Your task to perform on an android device: turn on notifications settings in the gmail app Image 0: 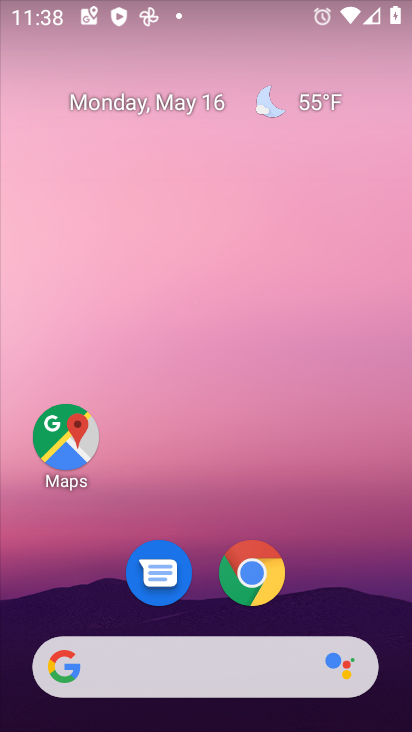
Step 0: drag from (376, 579) to (343, 209)
Your task to perform on an android device: turn on notifications settings in the gmail app Image 1: 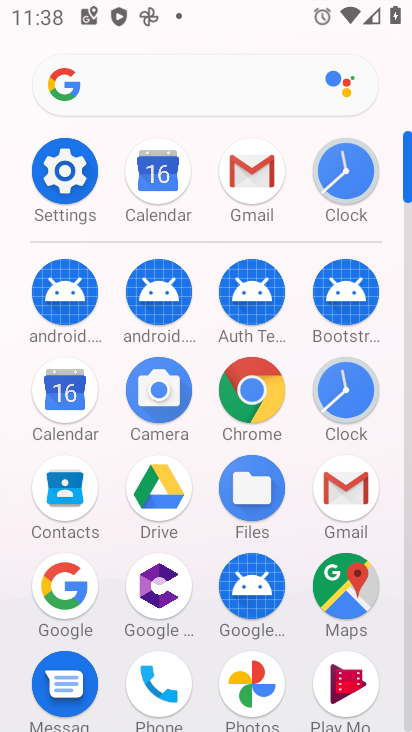
Step 1: click (334, 493)
Your task to perform on an android device: turn on notifications settings in the gmail app Image 2: 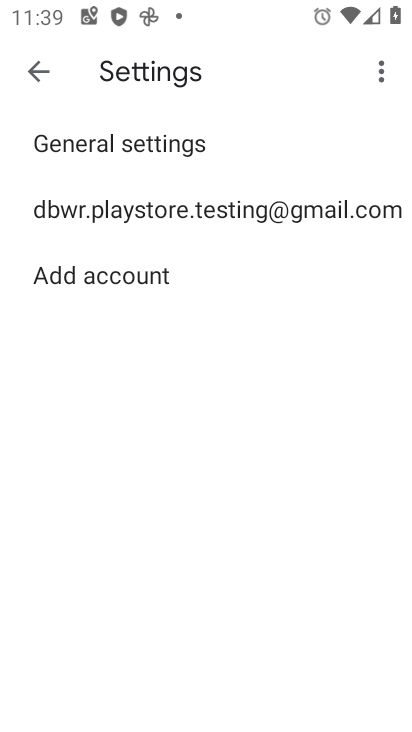
Step 2: click (127, 220)
Your task to perform on an android device: turn on notifications settings in the gmail app Image 3: 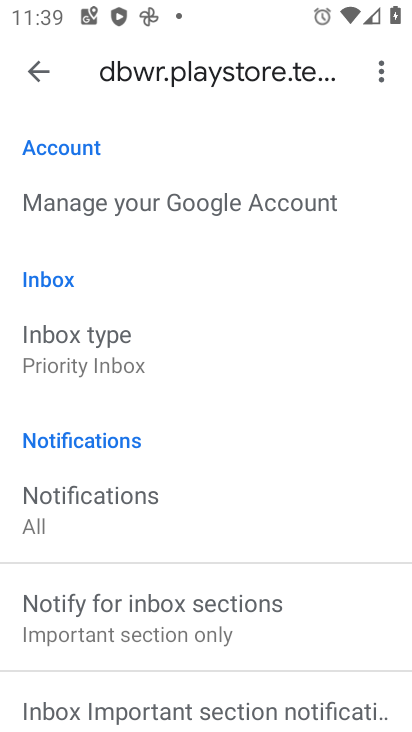
Step 3: drag from (206, 622) to (217, 297)
Your task to perform on an android device: turn on notifications settings in the gmail app Image 4: 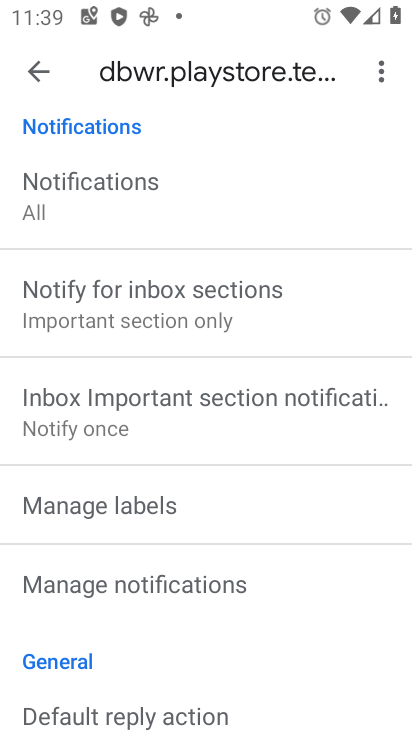
Step 4: click (145, 580)
Your task to perform on an android device: turn on notifications settings in the gmail app Image 5: 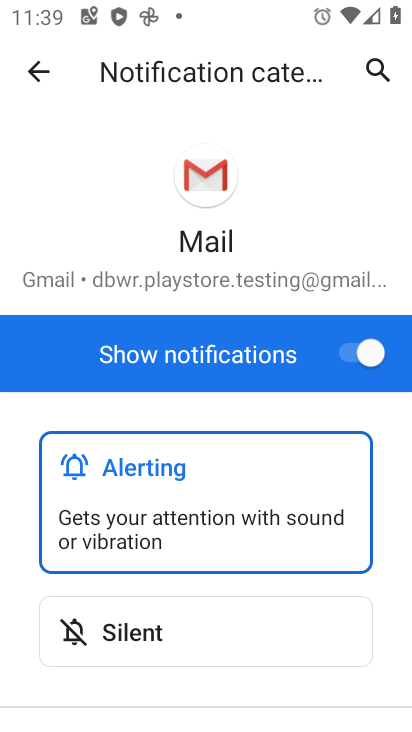
Step 5: task complete